Your task to perform on an android device: Open network settings Image 0: 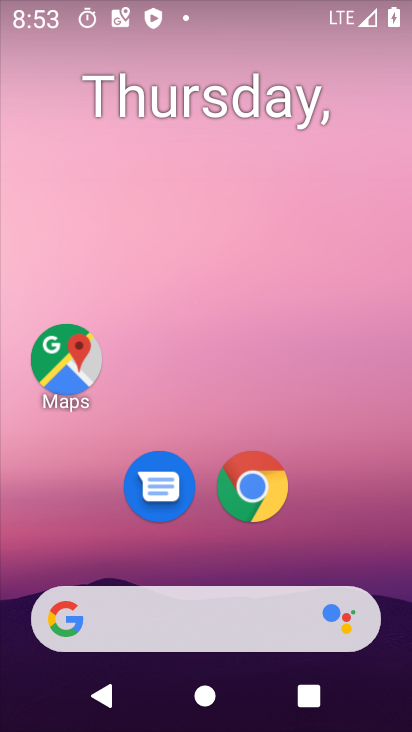
Step 0: drag from (219, 602) to (207, 190)
Your task to perform on an android device: Open network settings Image 1: 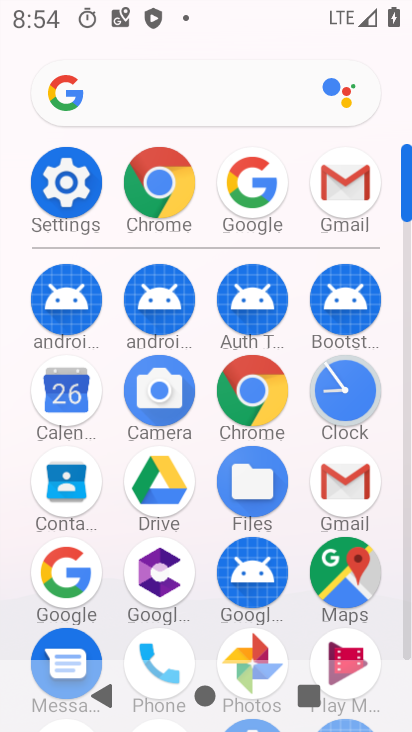
Step 1: click (66, 190)
Your task to perform on an android device: Open network settings Image 2: 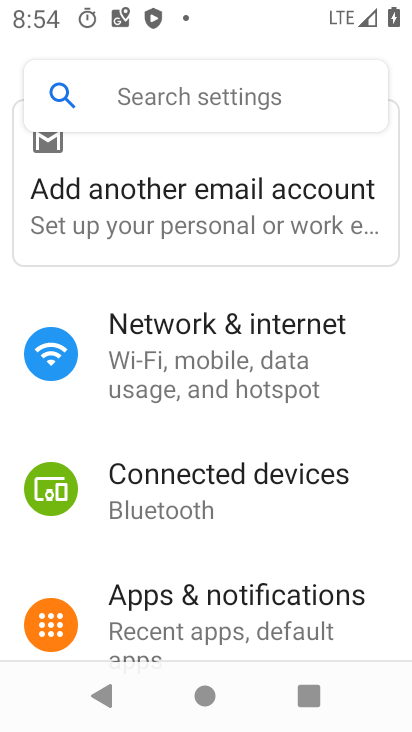
Step 2: click (253, 357)
Your task to perform on an android device: Open network settings Image 3: 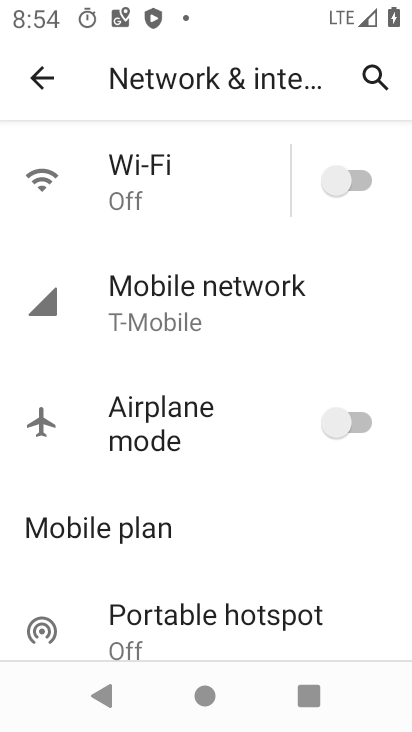
Step 3: click (242, 308)
Your task to perform on an android device: Open network settings Image 4: 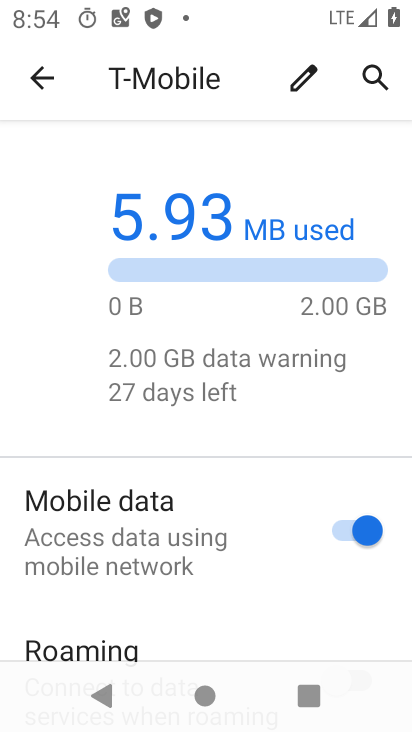
Step 4: task complete